Your task to perform on an android device: open app "DoorDash - Dasher" (install if not already installed) Image 0: 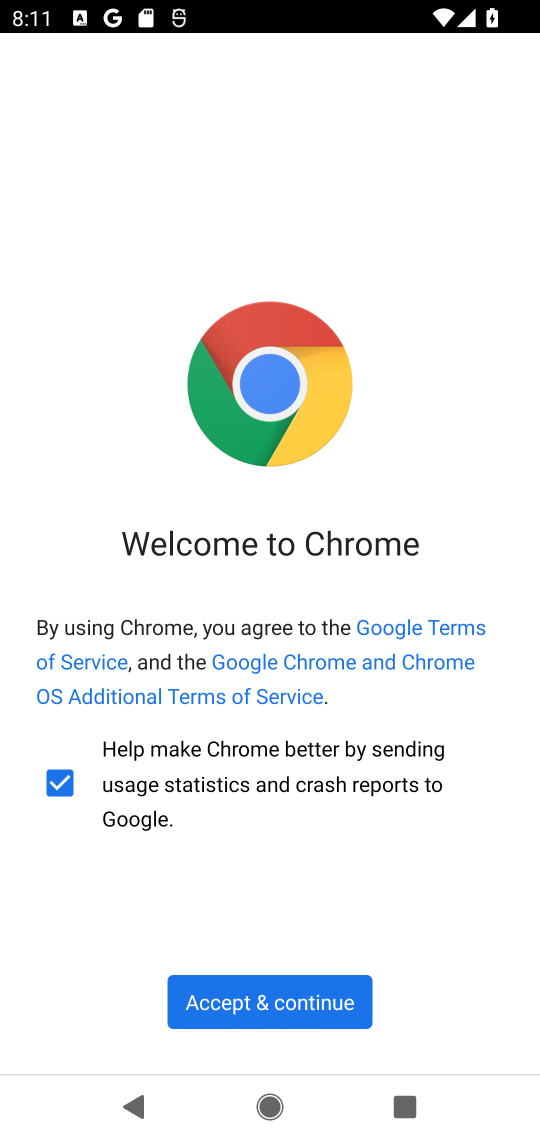
Step 0: press home button
Your task to perform on an android device: open app "DoorDash - Dasher" (install if not already installed) Image 1: 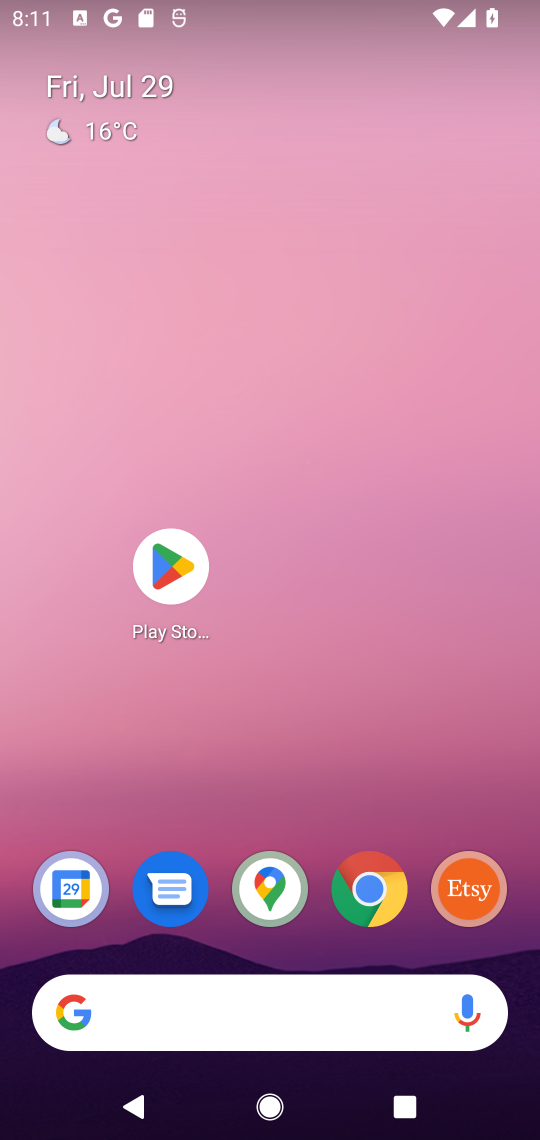
Step 1: click (172, 566)
Your task to perform on an android device: open app "DoorDash - Dasher" (install if not already installed) Image 2: 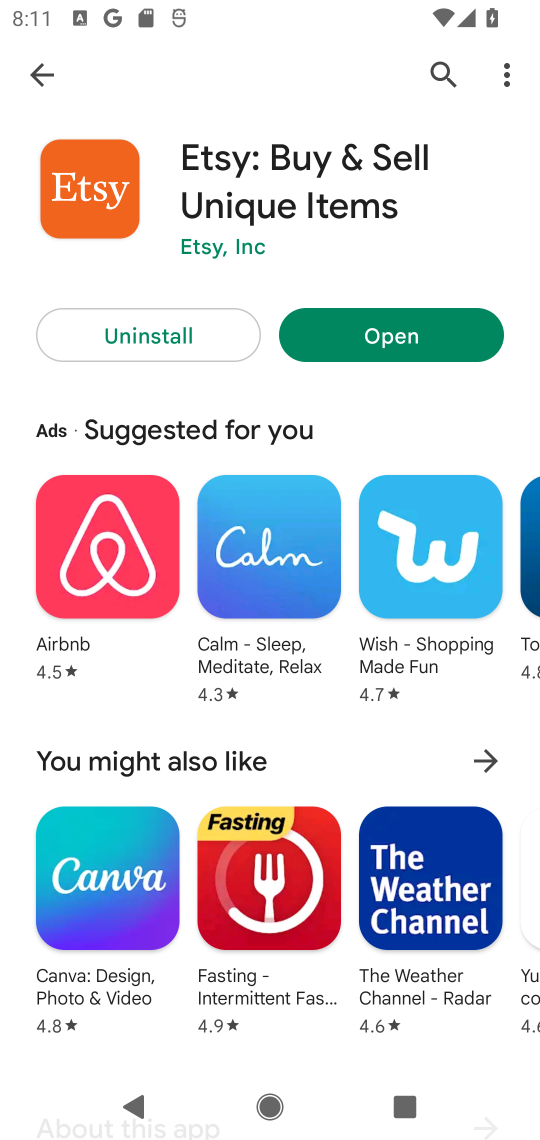
Step 2: click (434, 77)
Your task to perform on an android device: open app "DoorDash - Dasher" (install if not already installed) Image 3: 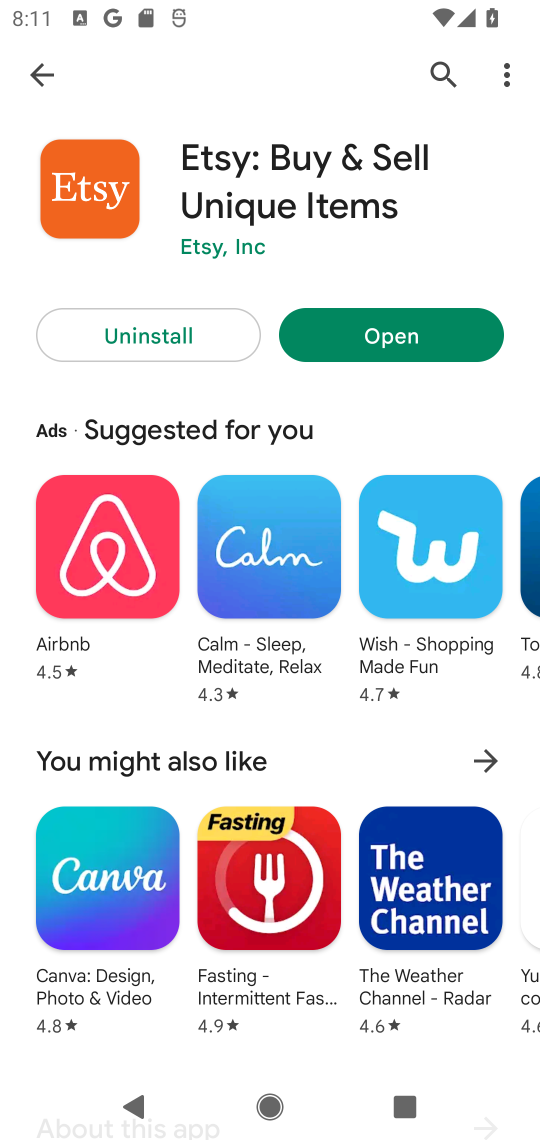
Step 3: click (435, 71)
Your task to perform on an android device: open app "DoorDash - Dasher" (install if not already installed) Image 4: 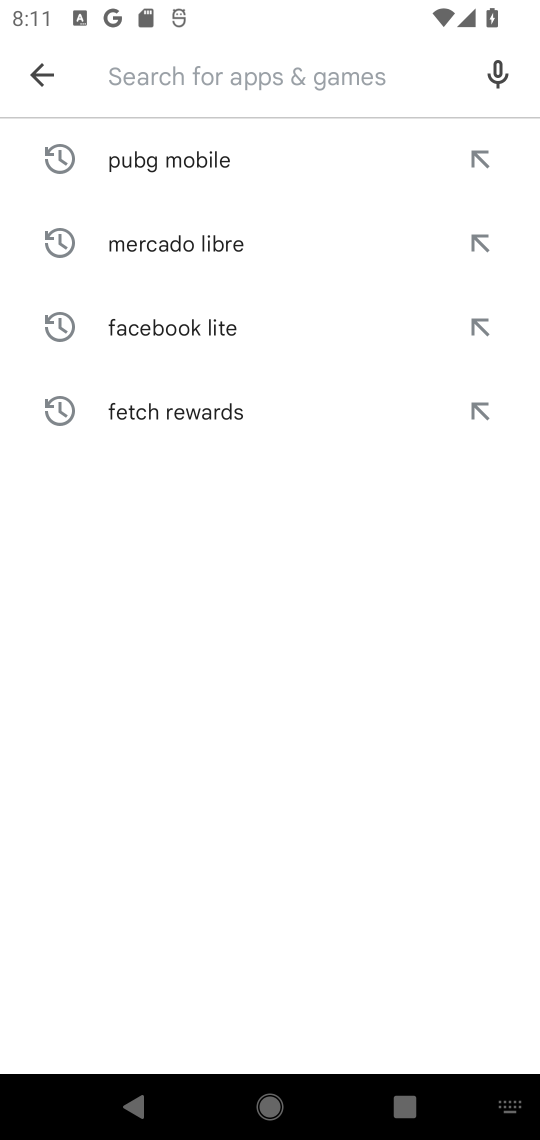
Step 4: type "DoorDash - Dasher"
Your task to perform on an android device: open app "DoorDash - Dasher" (install if not already installed) Image 5: 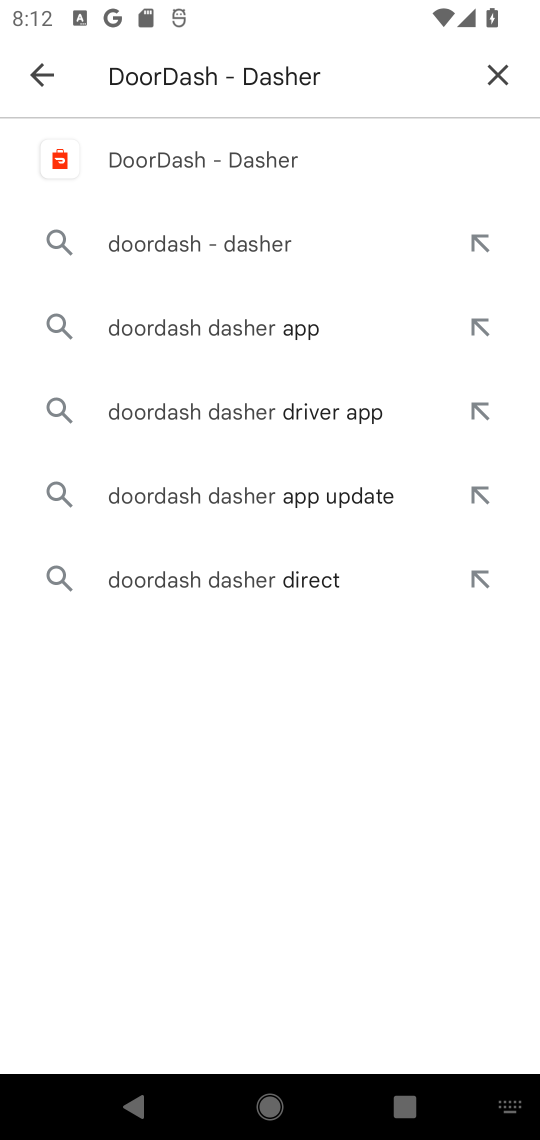
Step 5: click (212, 160)
Your task to perform on an android device: open app "DoorDash - Dasher" (install if not already installed) Image 6: 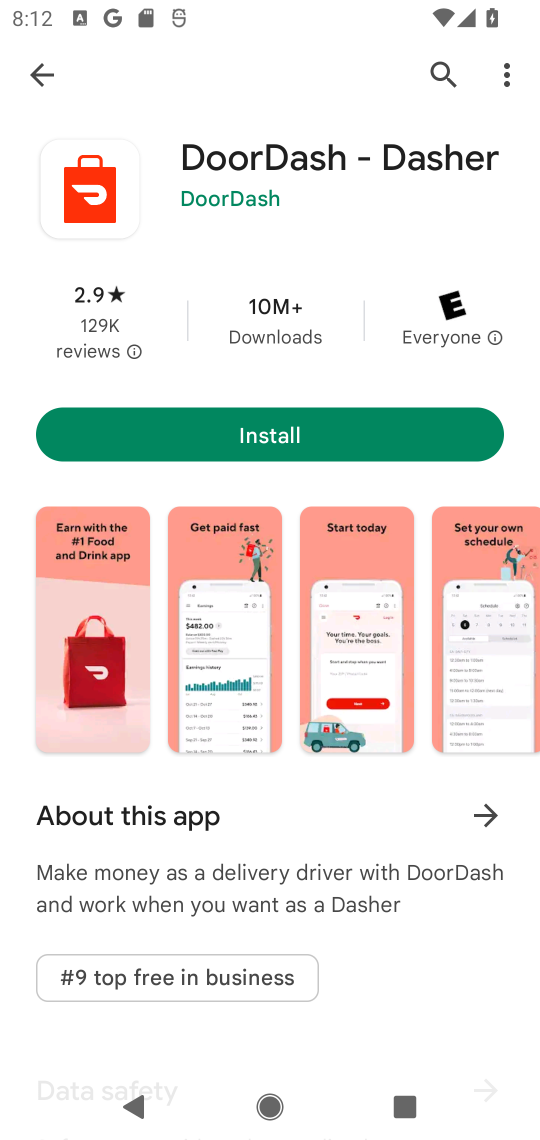
Step 6: click (294, 420)
Your task to perform on an android device: open app "DoorDash - Dasher" (install if not already installed) Image 7: 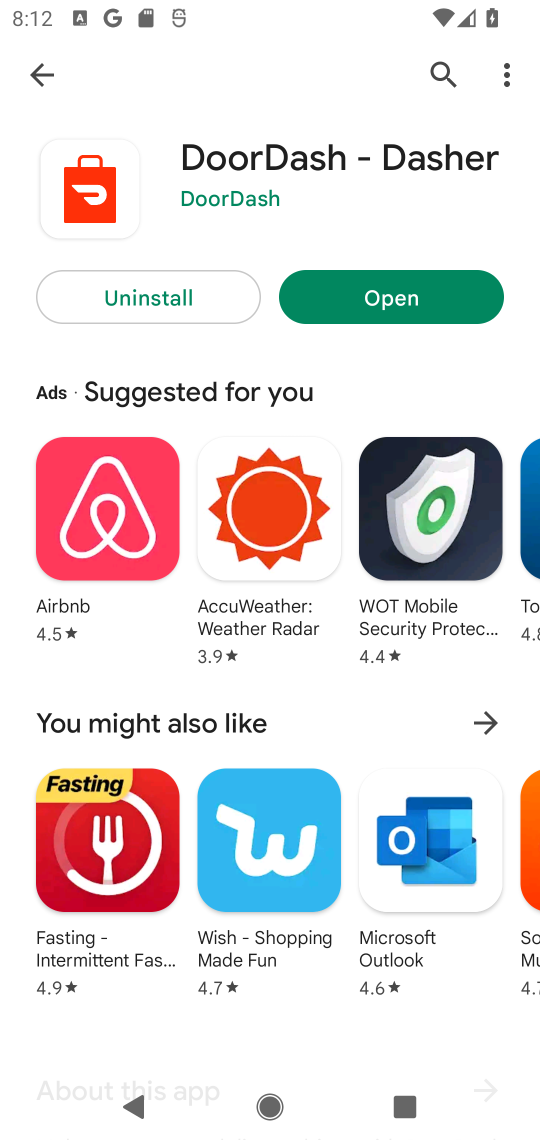
Step 7: click (420, 302)
Your task to perform on an android device: open app "DoorDash - Dasher" (install if not already installed) Image 8: 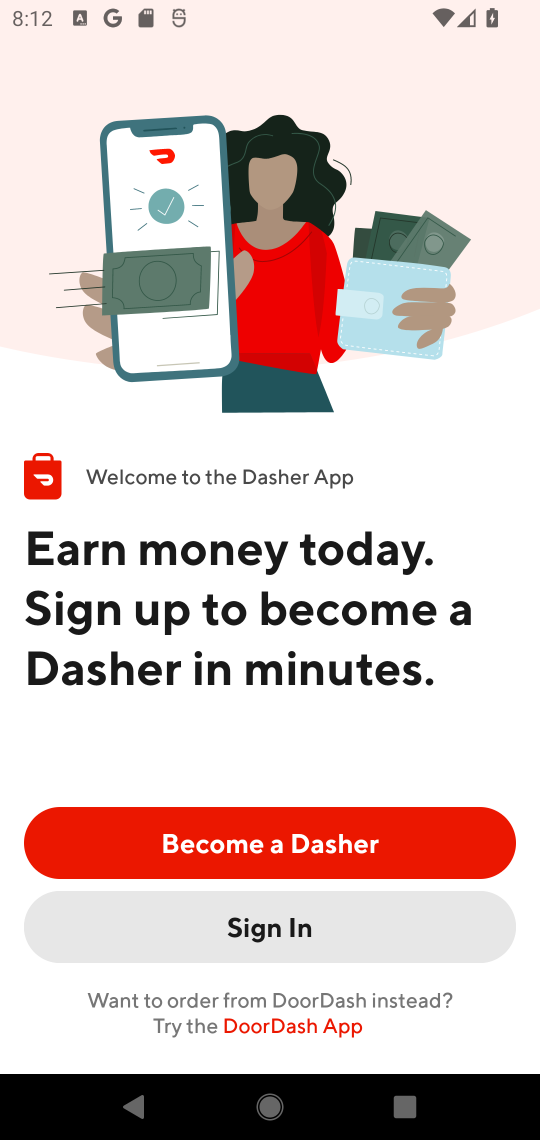
Step 8: task complete